Your task to perform on an android device: open the mobile data screen to see how much data has been used Image 0: 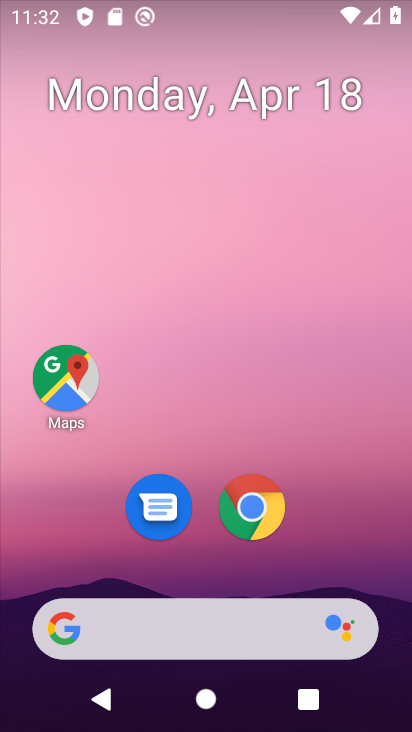
Step 0: drag from (347, 511) to (354, 100)
Your task to perform on an android device: open the mobile data screen to see how much data has been used Image 1: 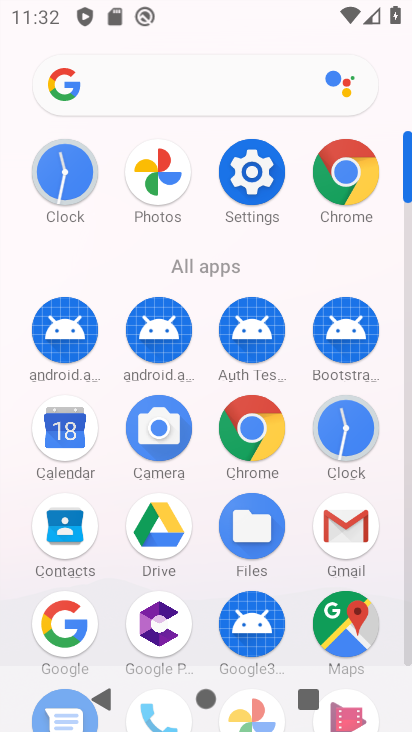
Step 1: click (264, 196)
Your task to perform on an android device: open the mobile data screen to see how much data has been used Image 2: 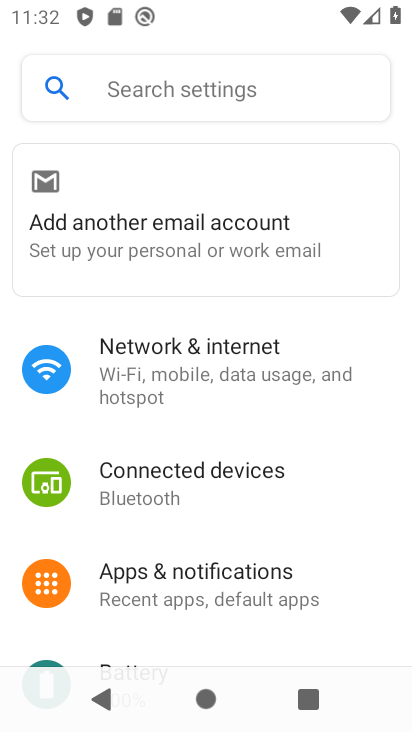
Step 2: drag from (230, 377) to (250, 191)
Your task to perform on an android device: open the mobile data screen to see how much data has been used Image 3: 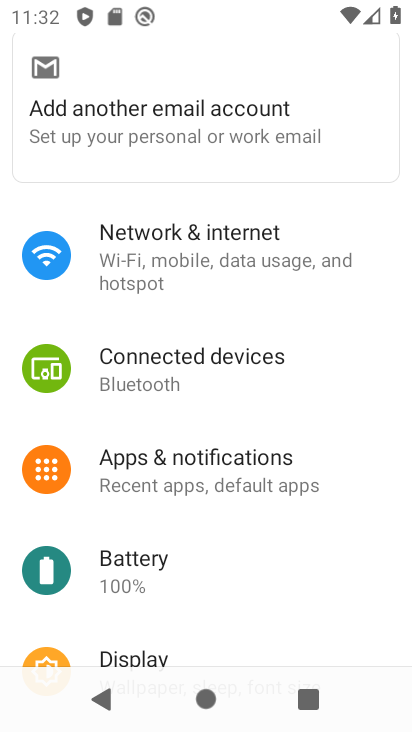
Step 3: drag from (209, 522) to (200, 423)
Your task to perform on an android device: open the mobile data screen to see how much data has been used Image 4: 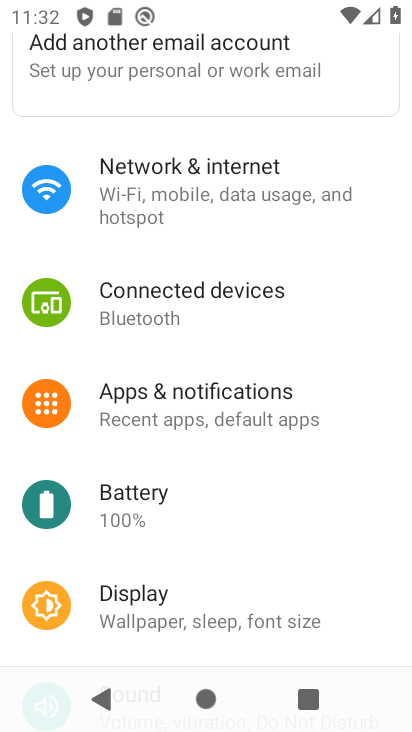
Step 4: click (170, 185)
Your task to perform on an android device: open the mobile data screen to see how much data has been used Image 5: 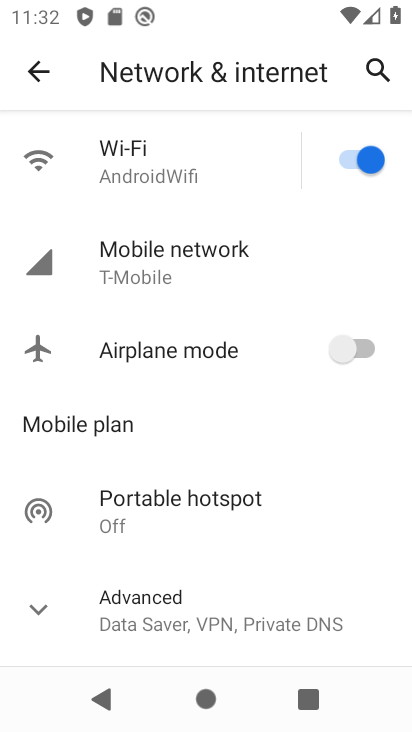
Step 5: click (118, 270)
Your task to perform on an android device: open the mobile data screen to see how much data has been used Image 6: 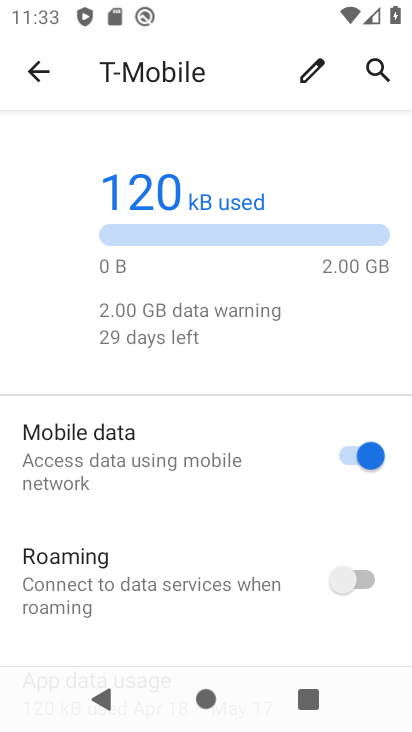
Step 6: drag from (155, 534) to (159, 206)
Your task to perform on an android device: open the mobile data screen to see how much data has been used Image 7: 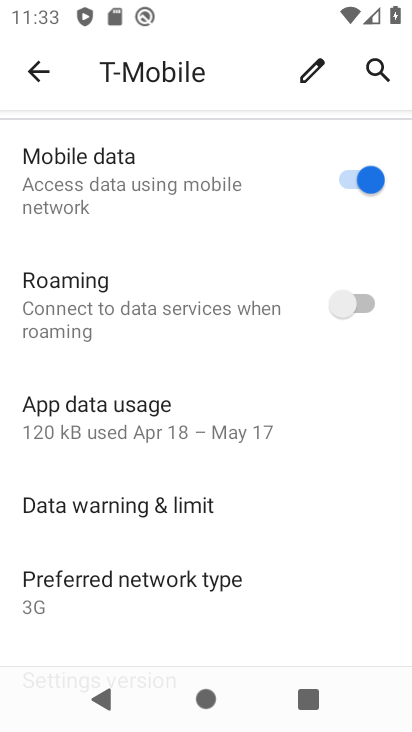
Step 7: click (169, 435)
Your task to perform on an android device: open the mobile data screen to see how much data has been used Image 8: 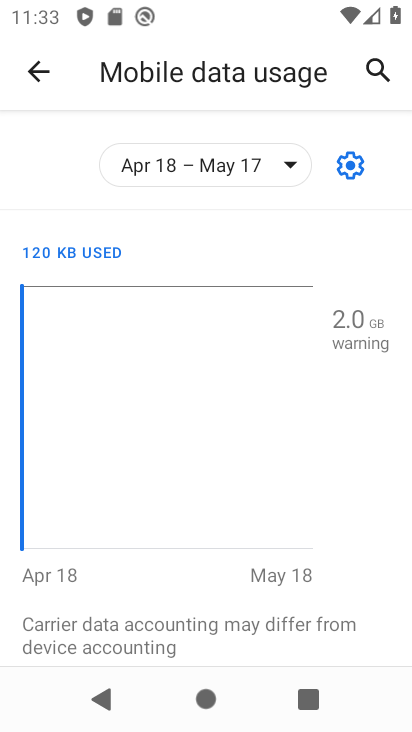
Step 8: task complete